Your task to perform on an android device: Open Google Chrome Image 0: 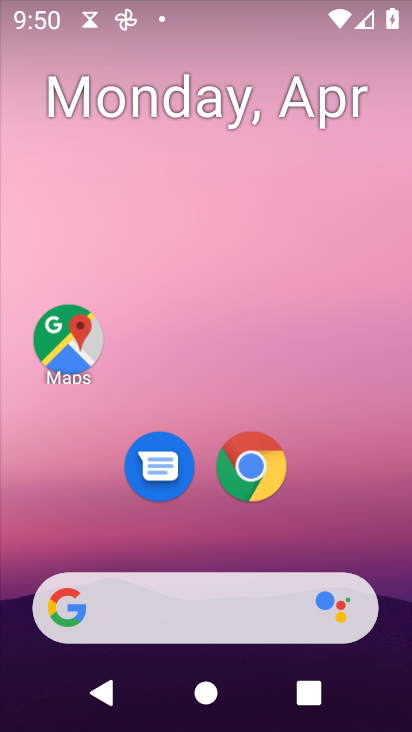
Step 0: click (258, 470)
Your task to perform on an android device: Open Google Chrome Image 1: 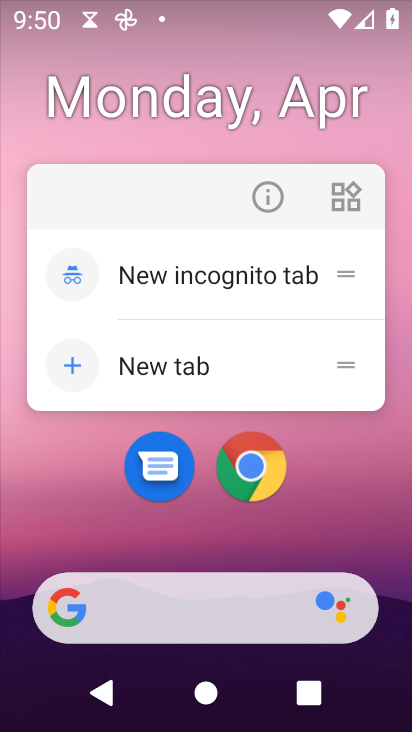
Step 1: click (258, 470)
Your task to perform on an android device: Open Google Chrome Image 2: 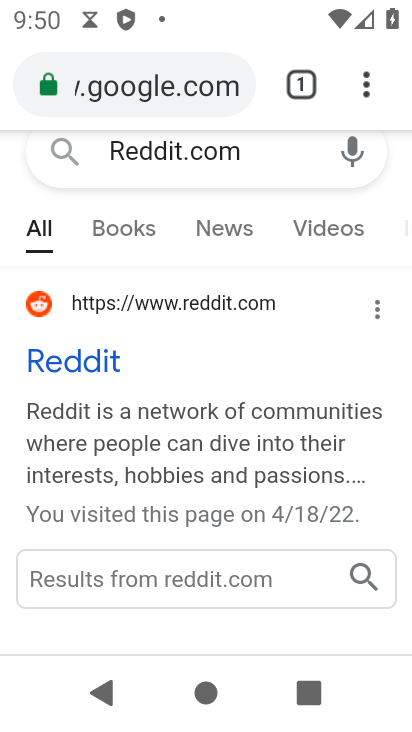
Step 2: task complete